Your task to perform on an android device: Show me productivity apps on the Play Store Image 0: 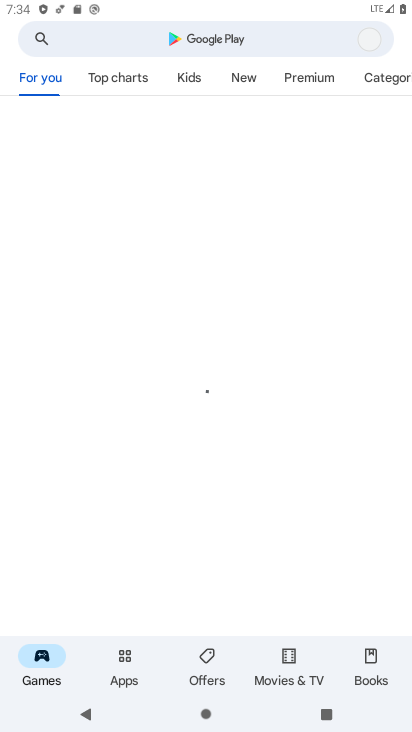
Step 0: press home button
Your task to perform on an android device: Show me productivity apps on the Play Store Image 1: 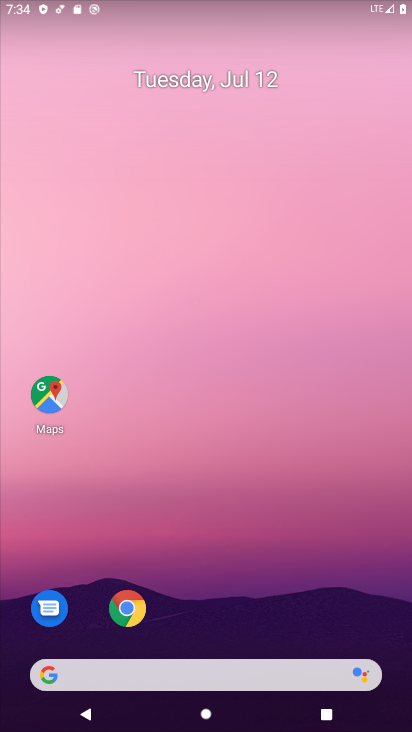
Step 1: drag from (197, 680) to (307, 300)
Your task to perform on an android device: Show me productivity apps on the Play Store Image 2: 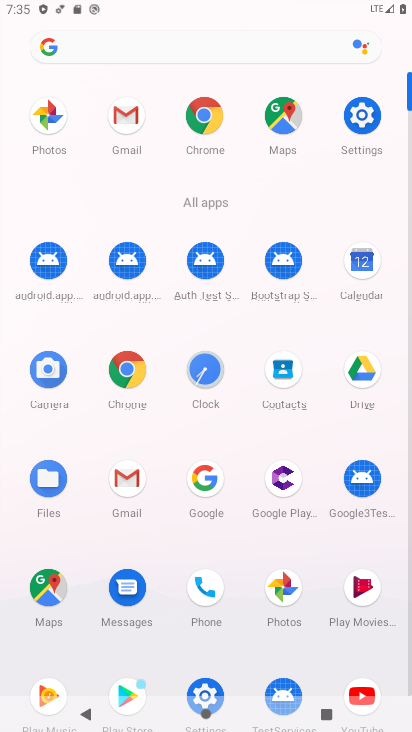
Step 2: click (128, 695)
Your task to perform on an android device: Show me productivity apps on the Play Store Image 3: 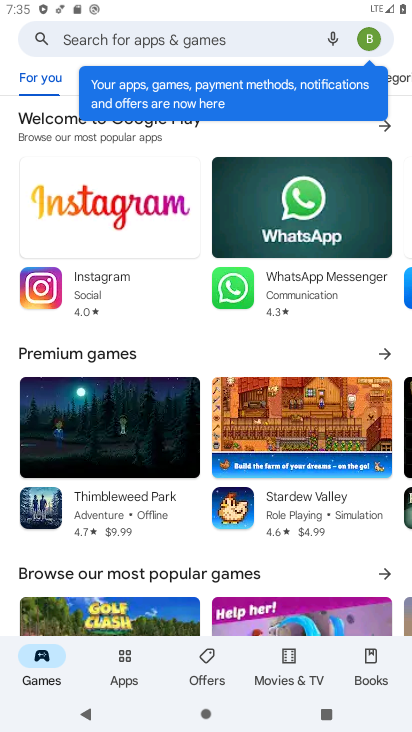
Step 3: click (120, 678)
Your task to perform on an android device: Show me productivity apps on the Play Store Image 4: 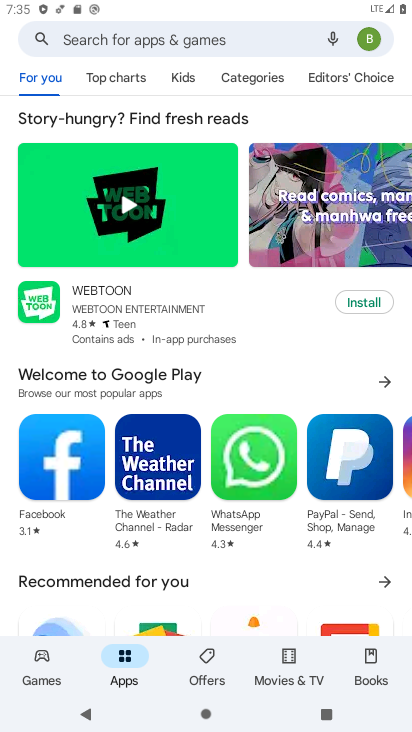
Step 4: click (260, 72)
Your task to perform on an android device: Show me productivity apps on the Play Store Image 5: 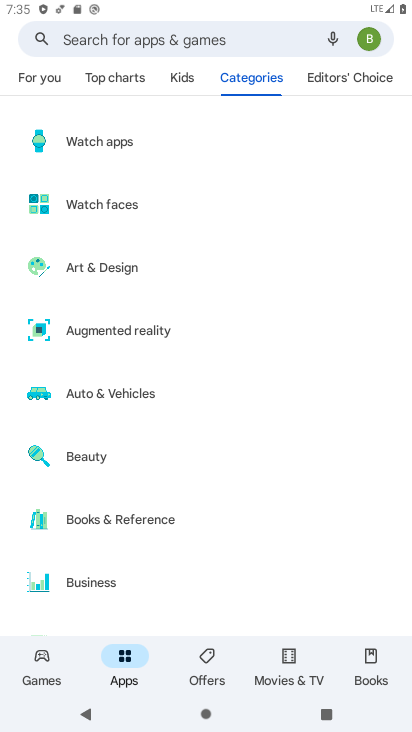
Step 5: drag from (236, 271) to (338, 138)
Your task to perform on an android device: Show me productivity apps on the Play Store Image 6: 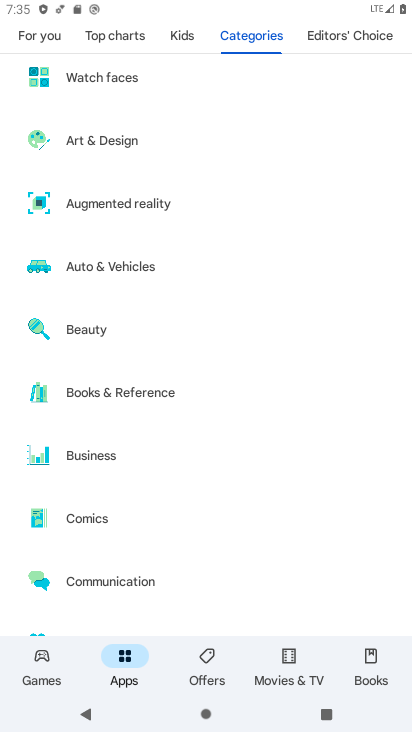
Step 6: drag from (226, 518) to (371, 196)
Your task to perform on an android device: Show me productivity apps on the Play Store Image 7: 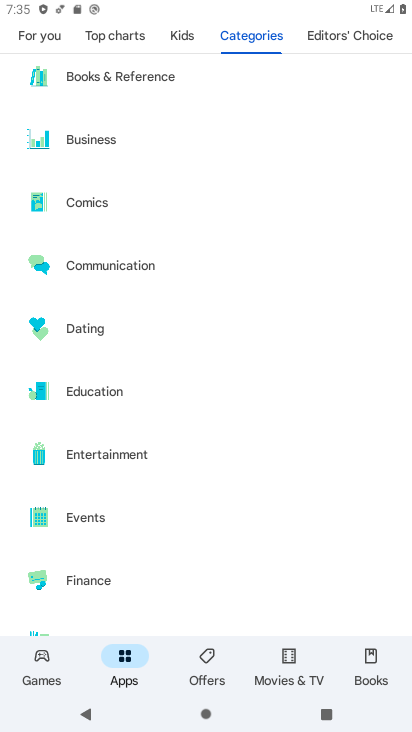
Step 7: drag from (185, 513) to (367, 103)
Your task to perform on an android device: Show me productivity apps on the Play Store Image 8: 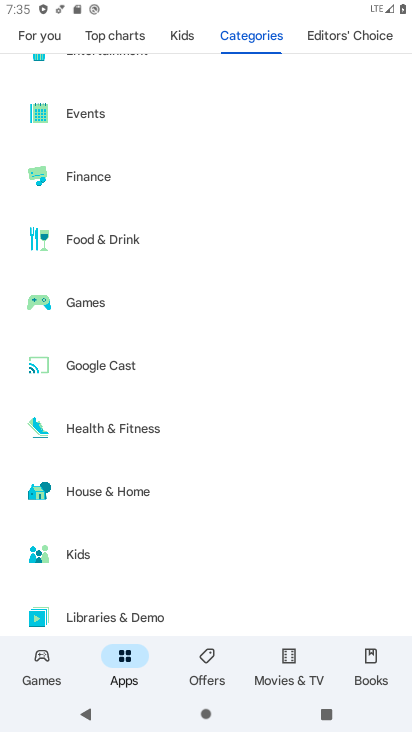
Step 8: drag from (225, 510) to (408, 230)
Your task to perform on an android device: Show me productivity apps on the Play Store Image 9: 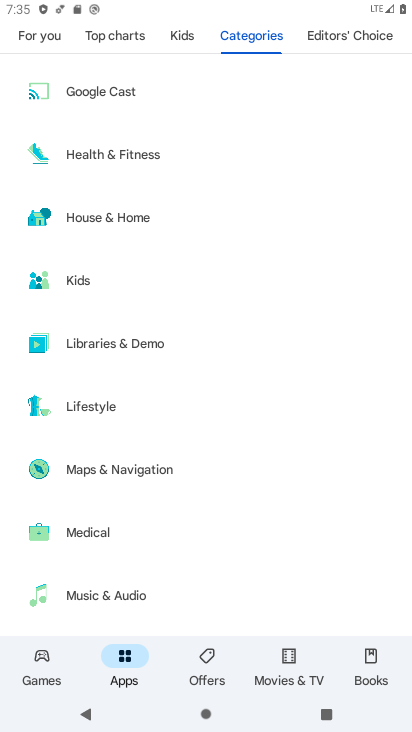
Step 9: drag from (259, 327) to (318, 158)
Your task to perform on an android device: Show me productivity apps on the Play Store Image 10: 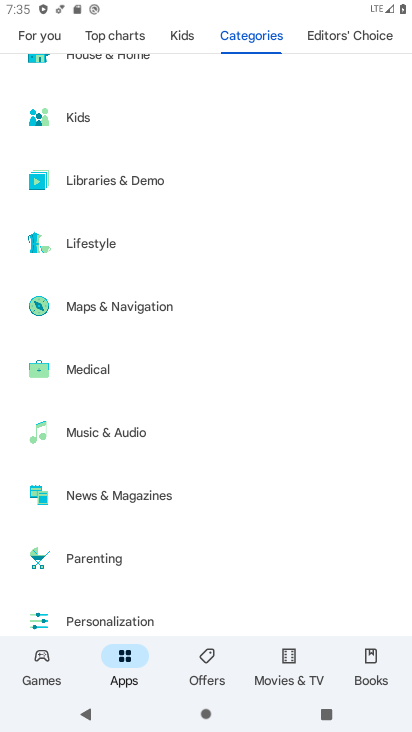
Step 10: drag from (148, 584) to (307, 177)
Your task to perform on an android device: Show me productivity apps on the Play Store Image 11: 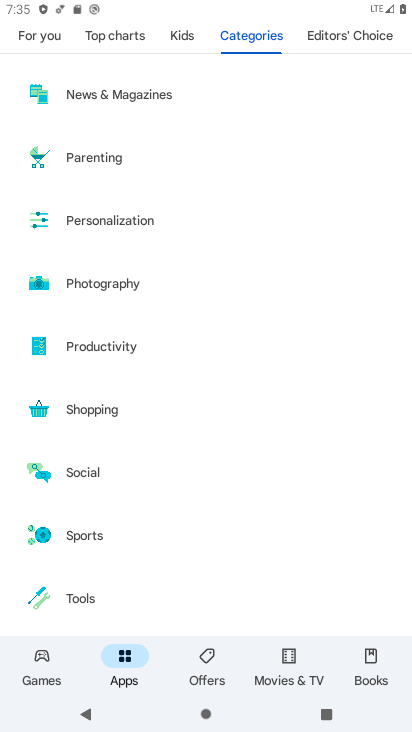
Step 11: click (127, 346)
Your task to perform on an android device: Show me productivity apps on the Play Store Image 12: 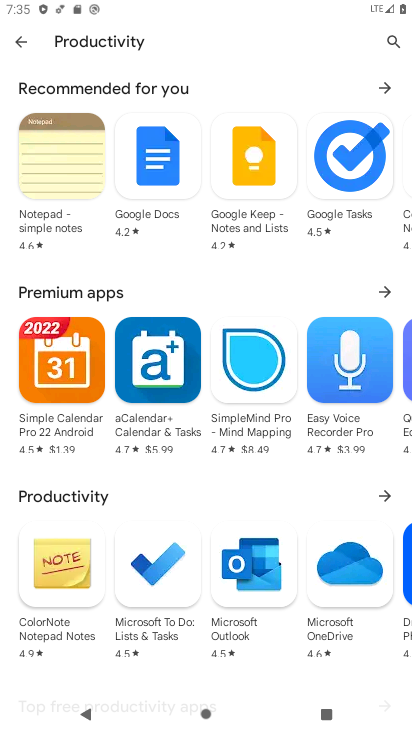
Step 12: task complete